Your task to perform on an android device: check battery use Image 0: 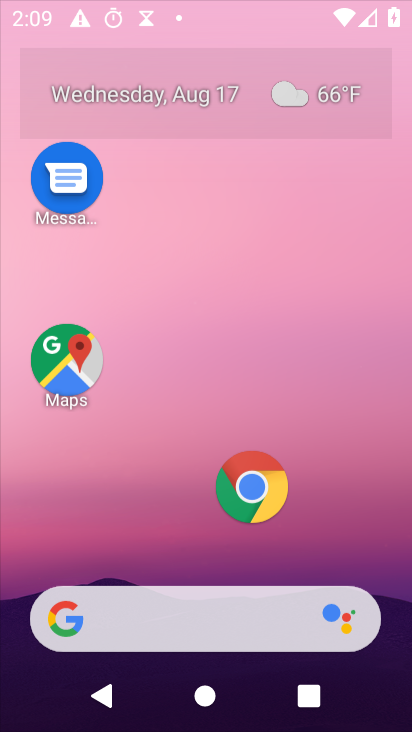
Step 0: press home button
Your task to perform on an android device: check battery use Image 1: 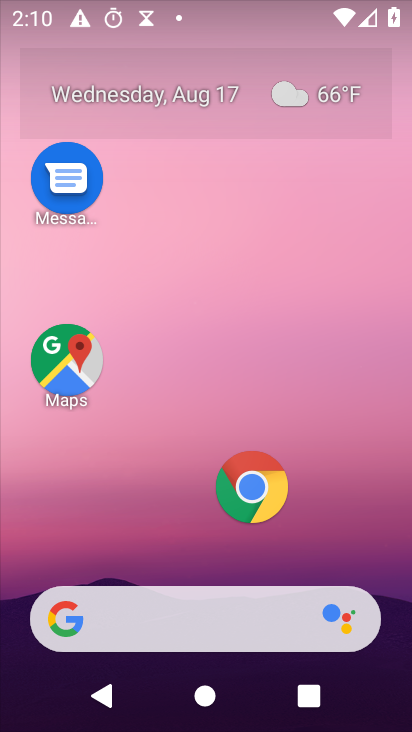
Step 1: drag from (206, 551) to (244, 61)
Your task to perform on an android device: check battery use Image 2: 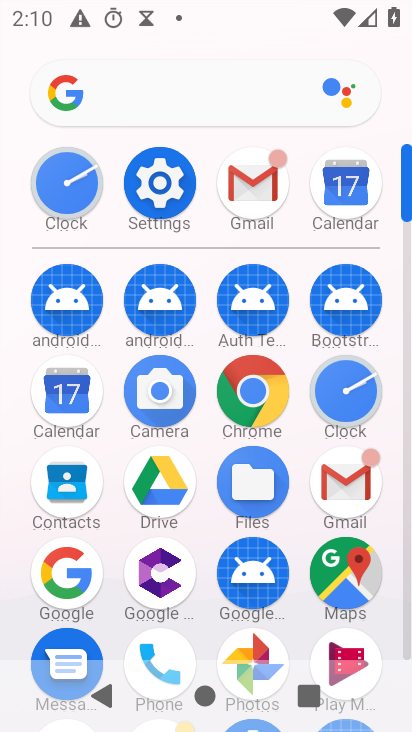
Step 2: drag from (392, 488) to (321, 22)
Your task to perform on an android device: check battery use Image 3: 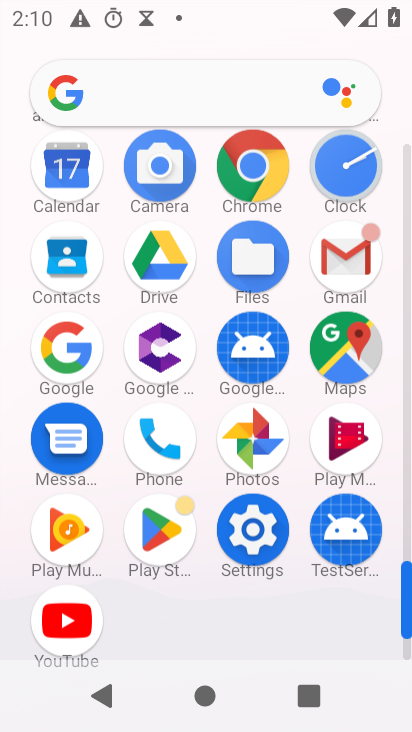
Step 3: click (266, 494)
Your task to perform on an android device: check battery use Image 4: 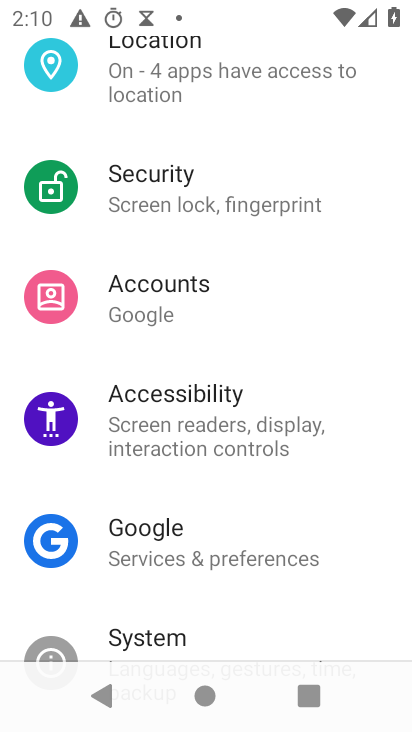
Step 4: drag from (331, 203) to (314, 622)
Your task to perform on an android device: check battery use Image 5: 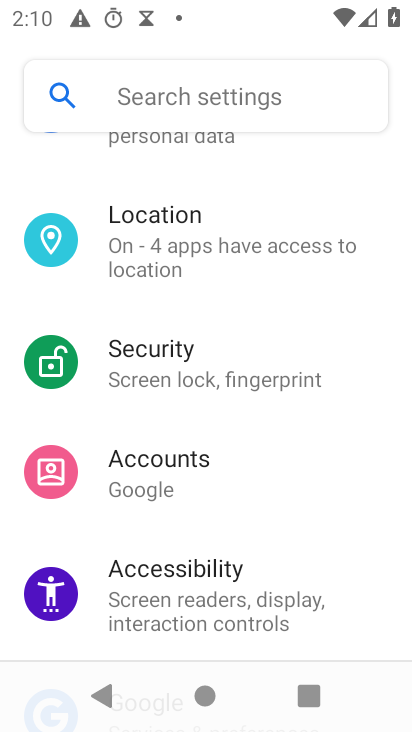
Step 5: drag from (260, 217) to (271, 707)
Your task to perform on an android device: check battery use Image 6: 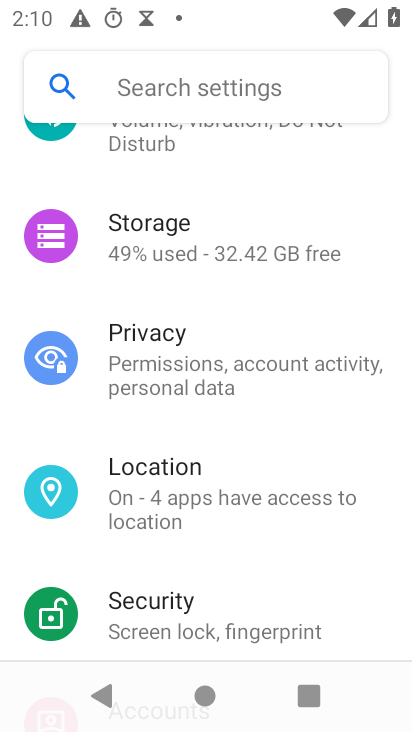
Step 6: drag from (330, 265) to (356, 687)
Your task to perform on an android device: check battery use Image 7: 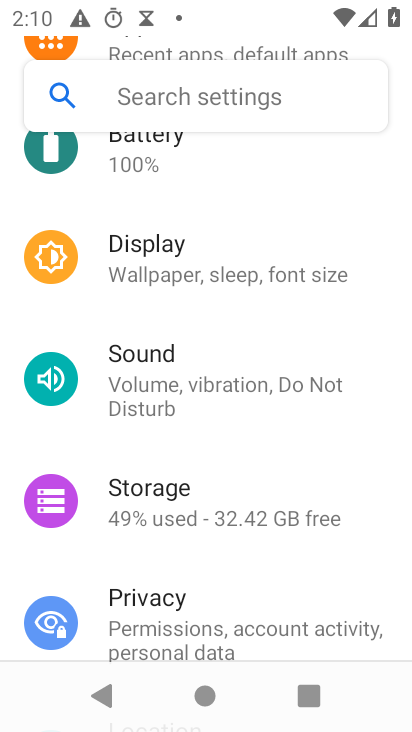
Step 7: click (135, 149)
Your task to perform on an android device: check battery use Image 8: 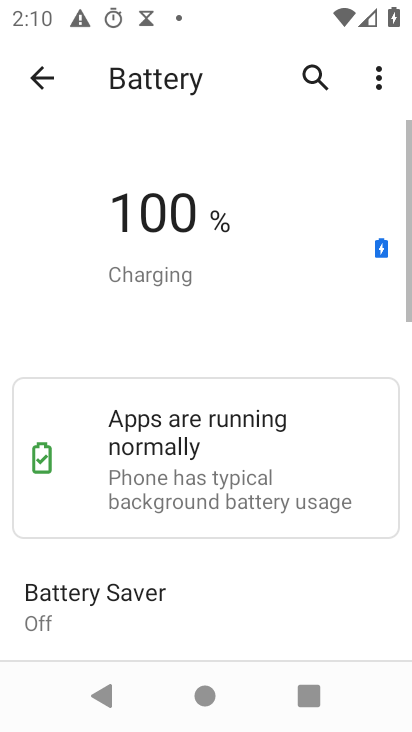
Step 8: click (375, 71)
Your task to perform on an android device: check battery use Image 9: 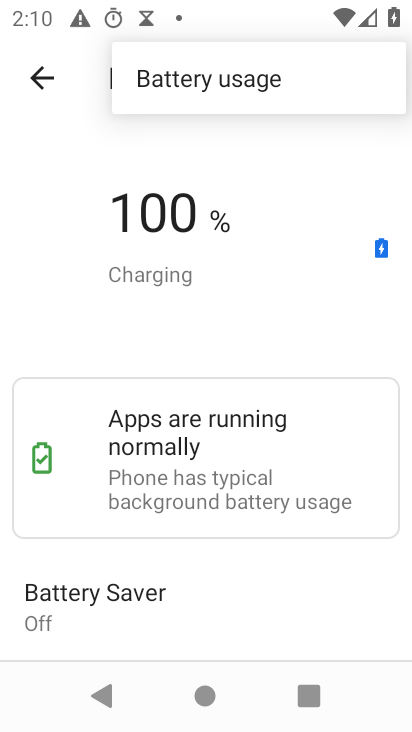
Step 9: click (208, 84)
Your task to perform on an android device: check battery use Image 10: 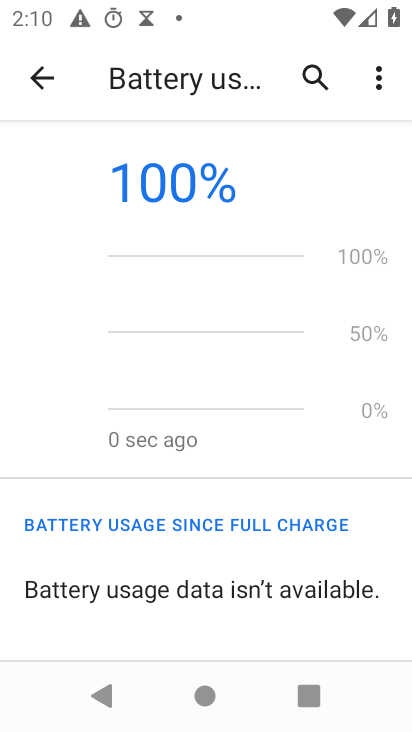
Step 10: task complete